Your task to perform on an android device: change keyboard looks Image 0: 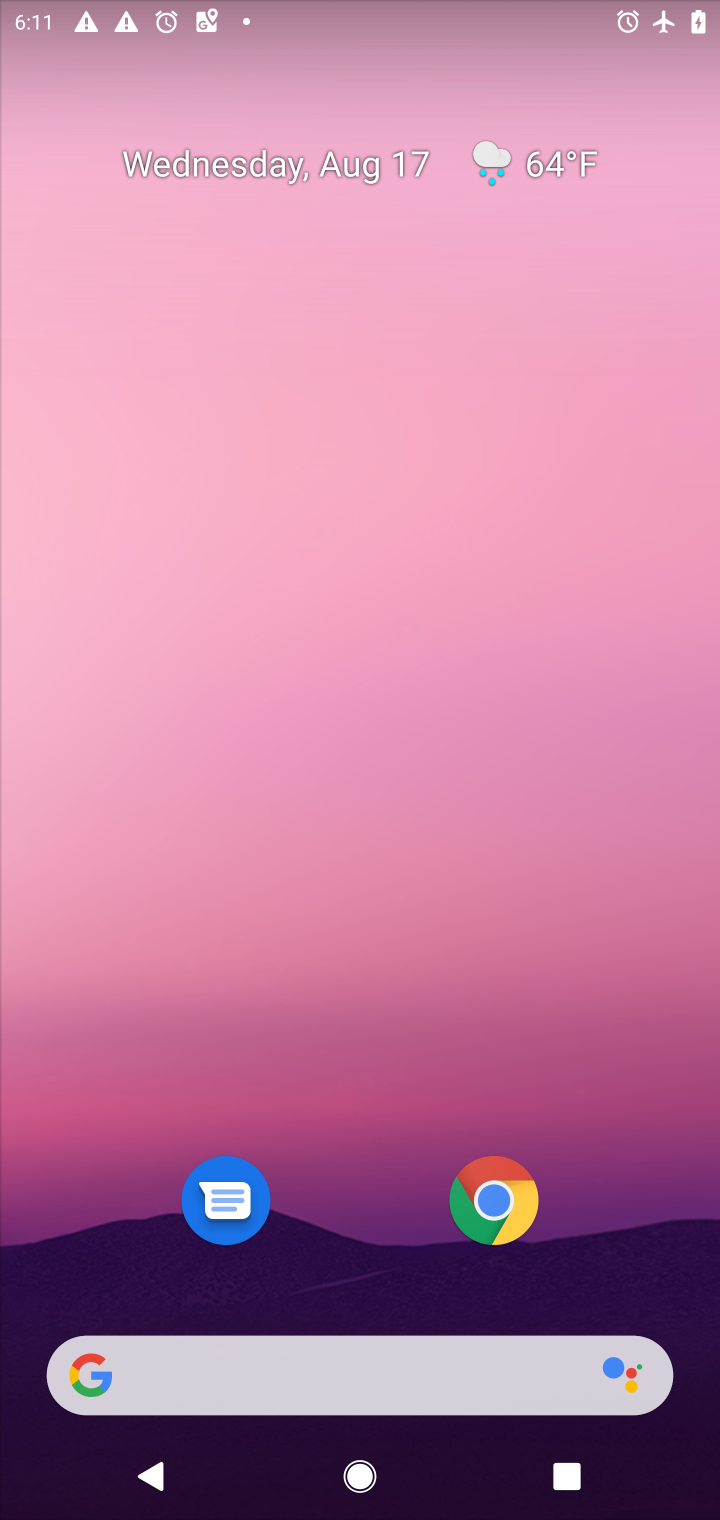
Step 0: press home button
Your task to perform on an android device: change keyboard looks Image 1: 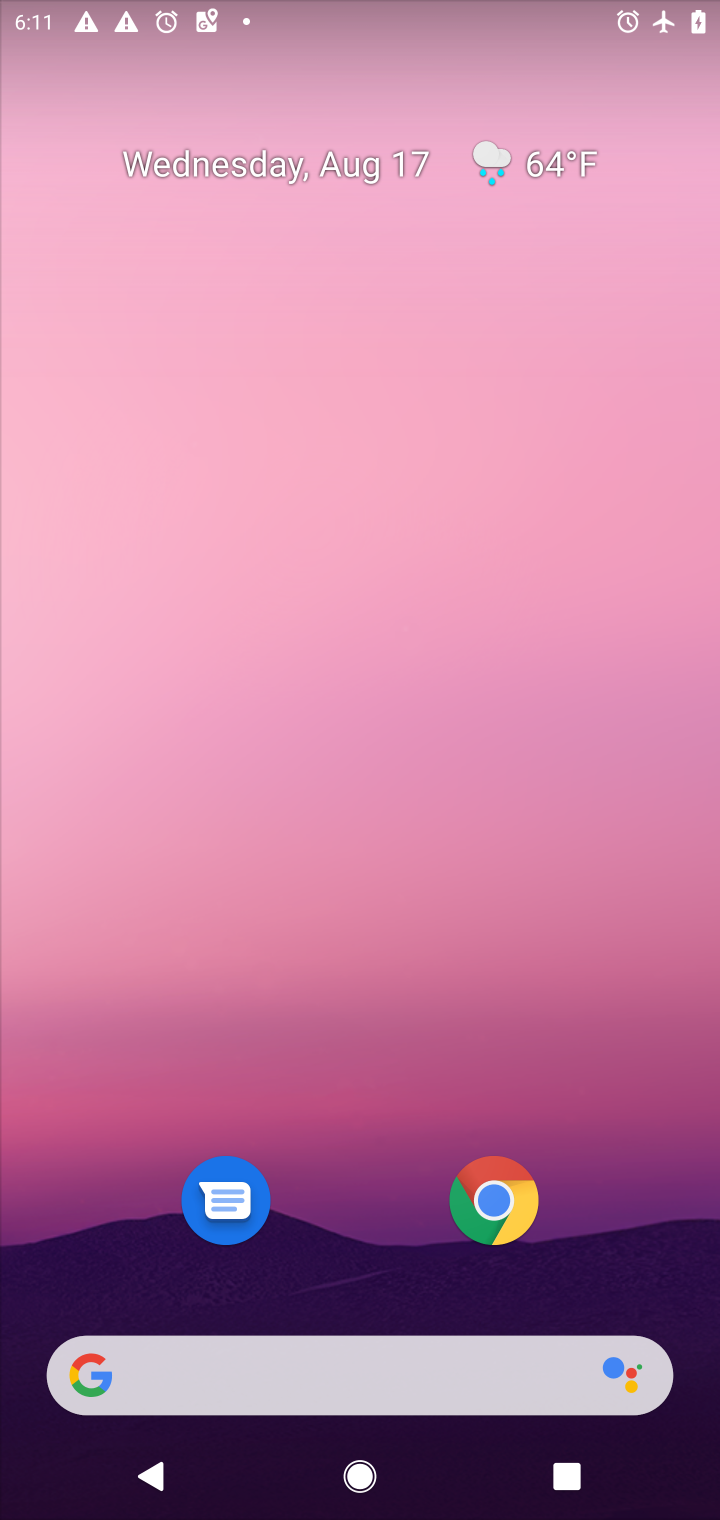
Step 1: drag from (361, 706) to (357, 168)
Your task to perform on an android device: change keyboard looks Image 2: 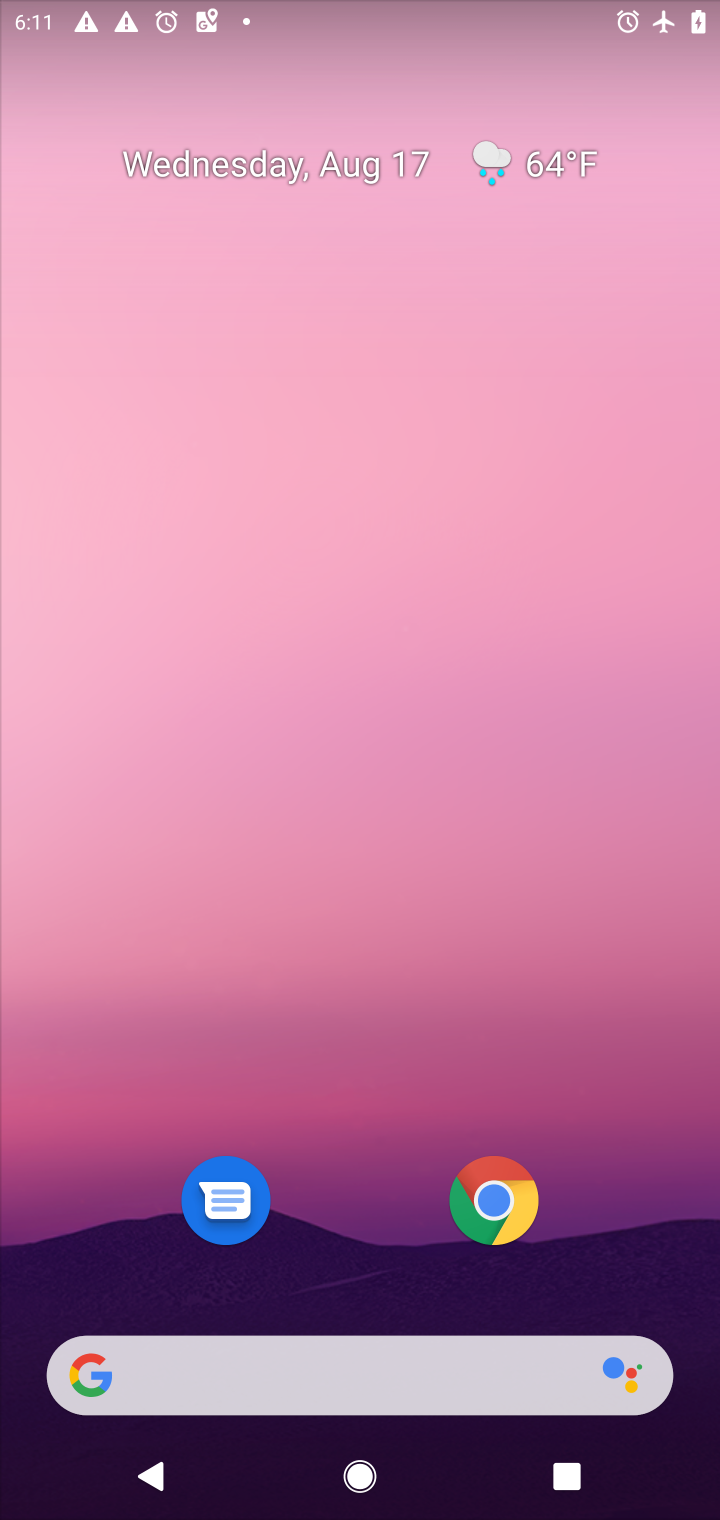
Step 2: drag from (374, 881) to (470, 7)
Your task to perform on an android device: change keyboard looks Image 3: 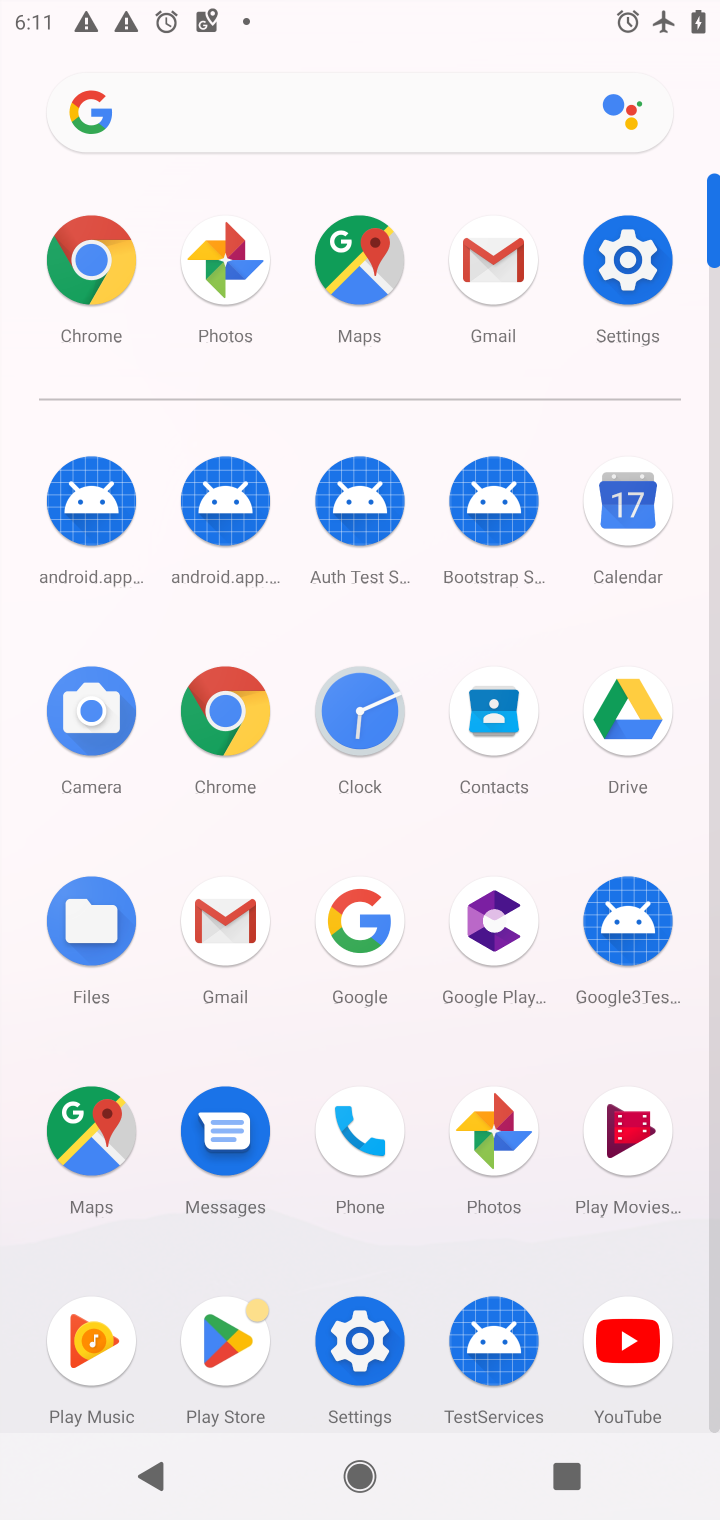
Step 3: click (615, 265)
Your task to perform on an android device: change keyboard looks Image 4: 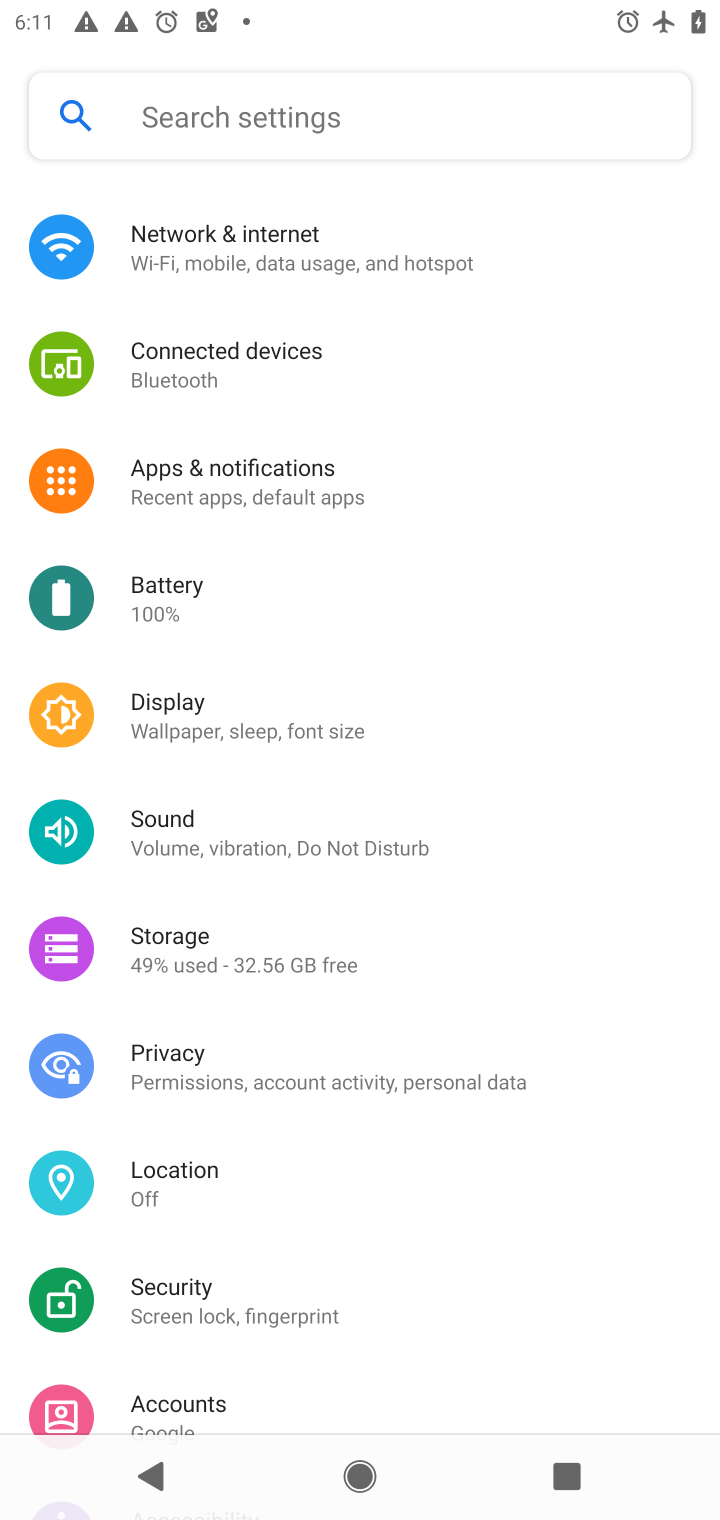
Step 4: drag from (263, 1180) to (258, 465)
Your task to perform on an android device: change keyboard looks Image 5: 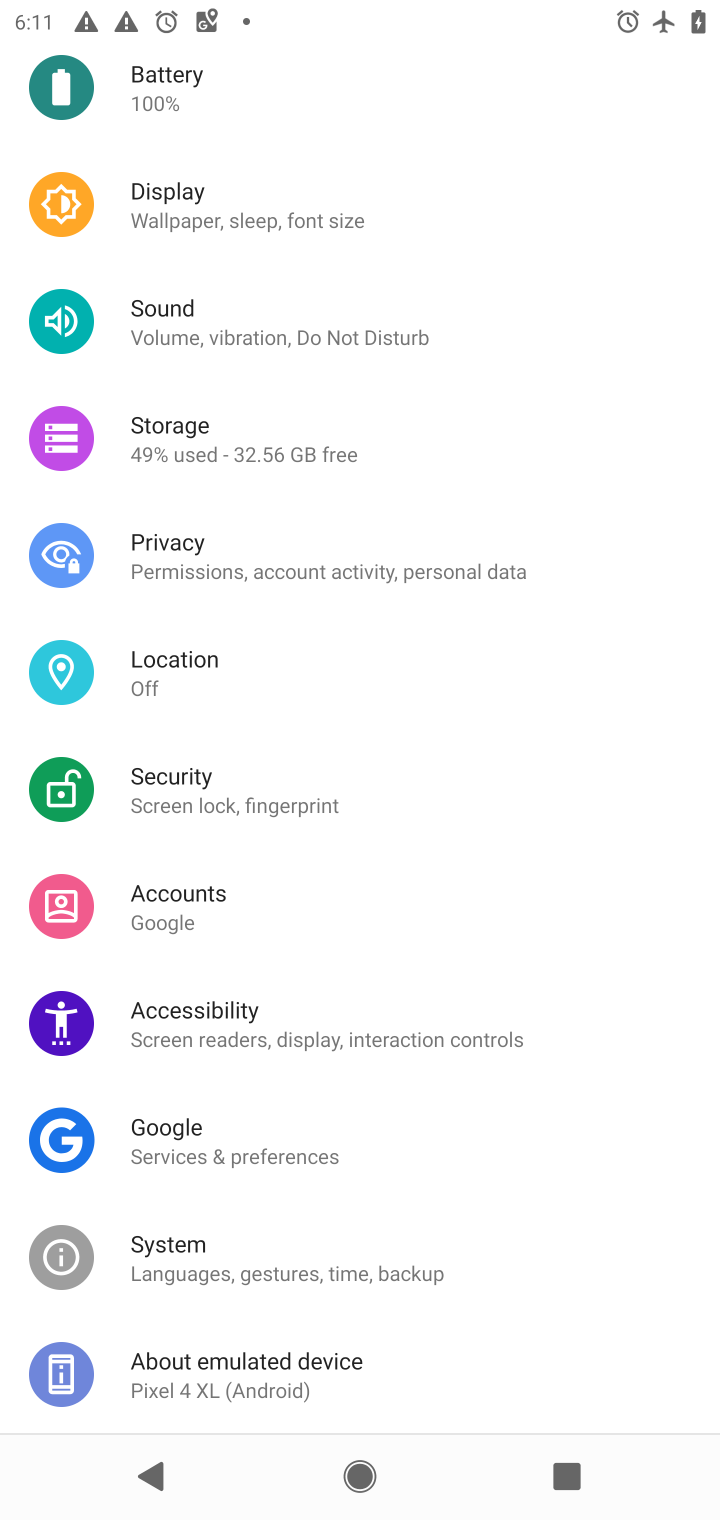
Step 5: drag from (237, 1326) to (220, 660)
Your task to perform on an android device: change keyboard looks Image 6: 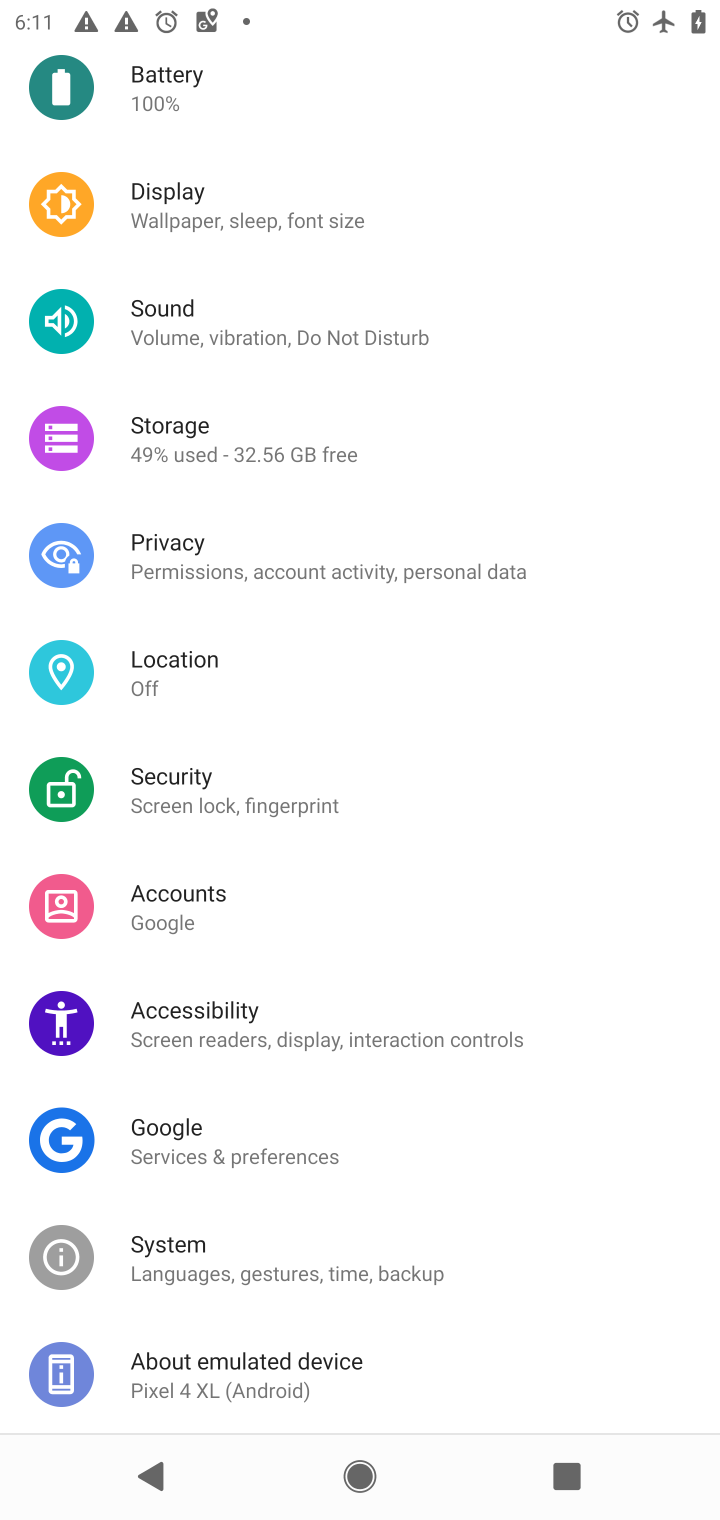
Step 6: click (180, 1270)
Your task to perform on an android device: change keyboard looks Image 7: 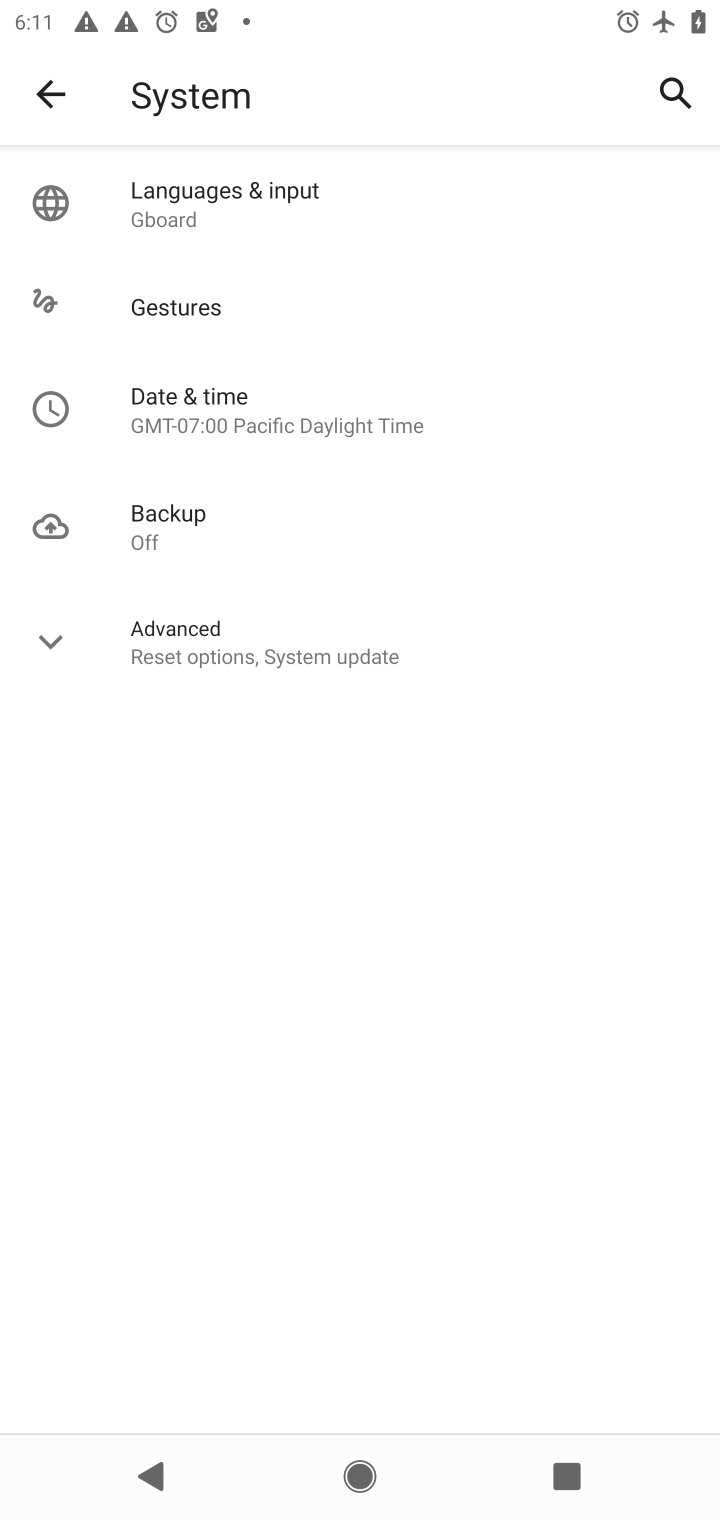
Step 7: click (204, 195)
Your task to perform on an android device: change keyboard looks Image 8: 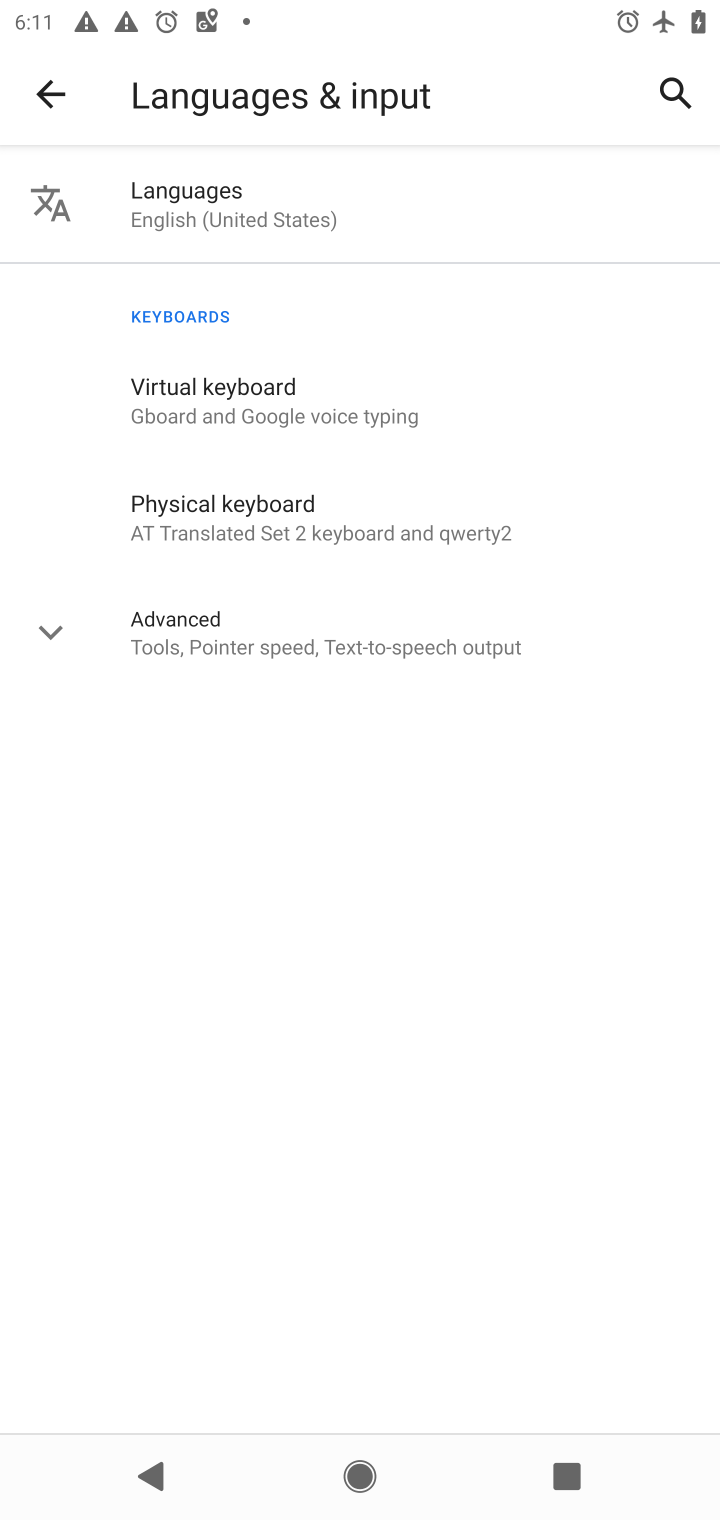
Step 8: click (253, 400)
Your task to perform on an android device: change keyboard looks Image 9: 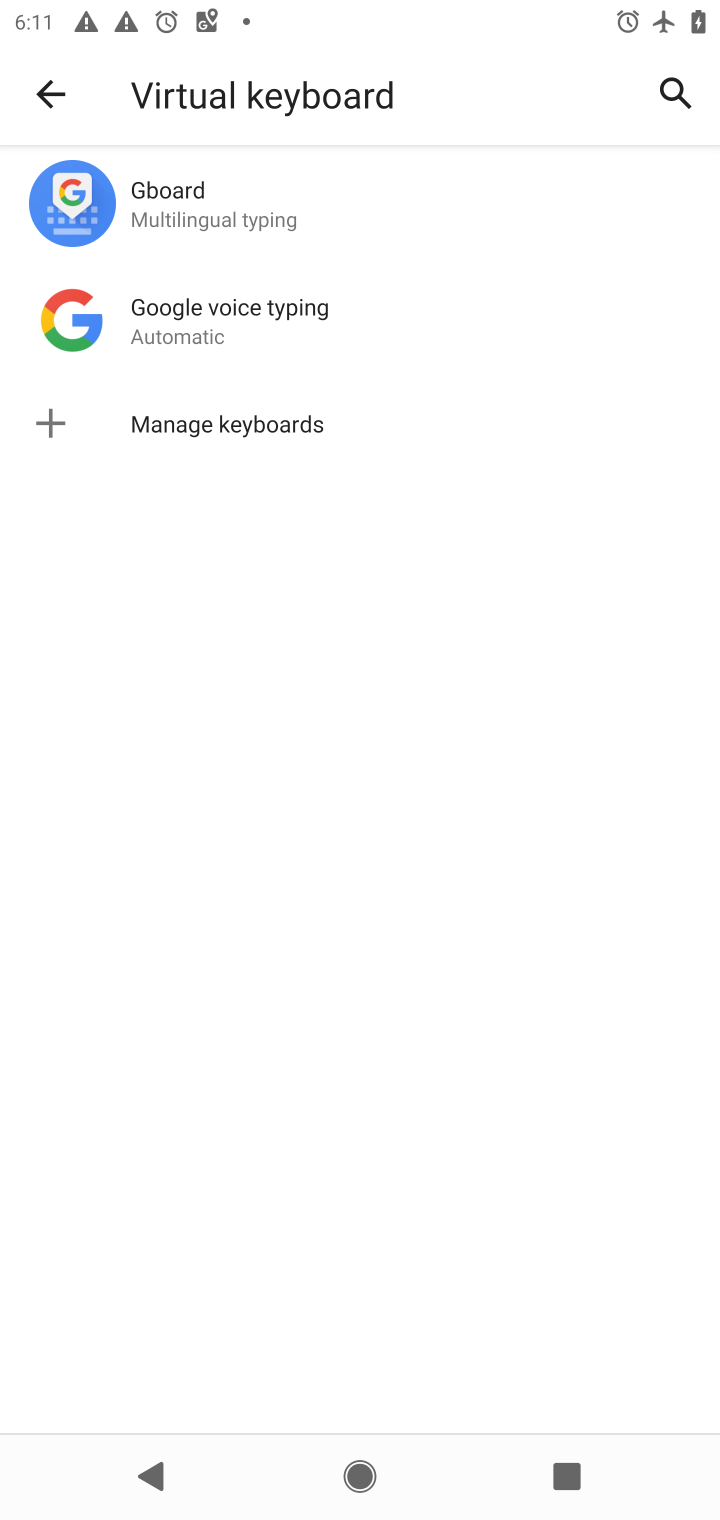
Step 9: click (210, 193)
Your task to perform on an android device: change keyboard looks Image 10: 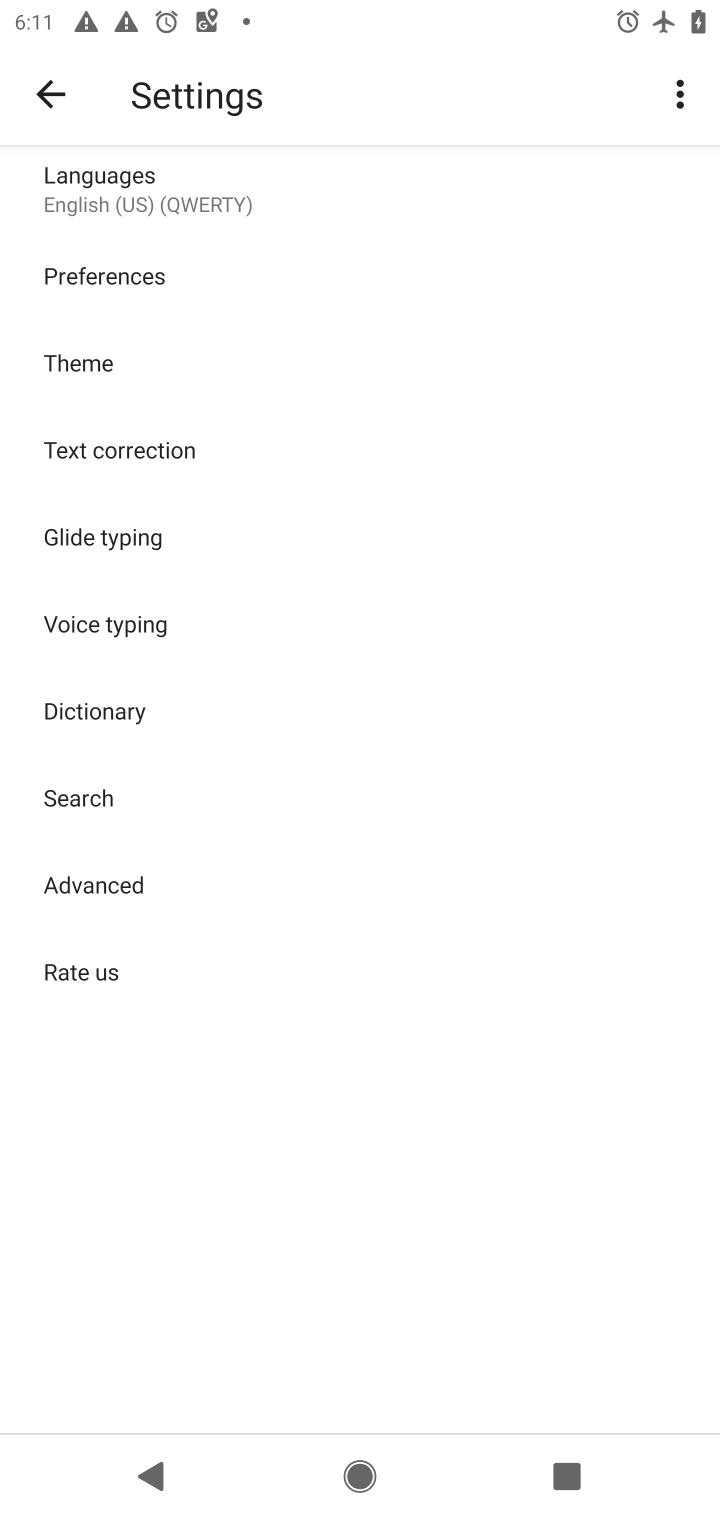
Step 10: click (72, 357)
Your task to perform on an android device: change keyboard looks Image 11: 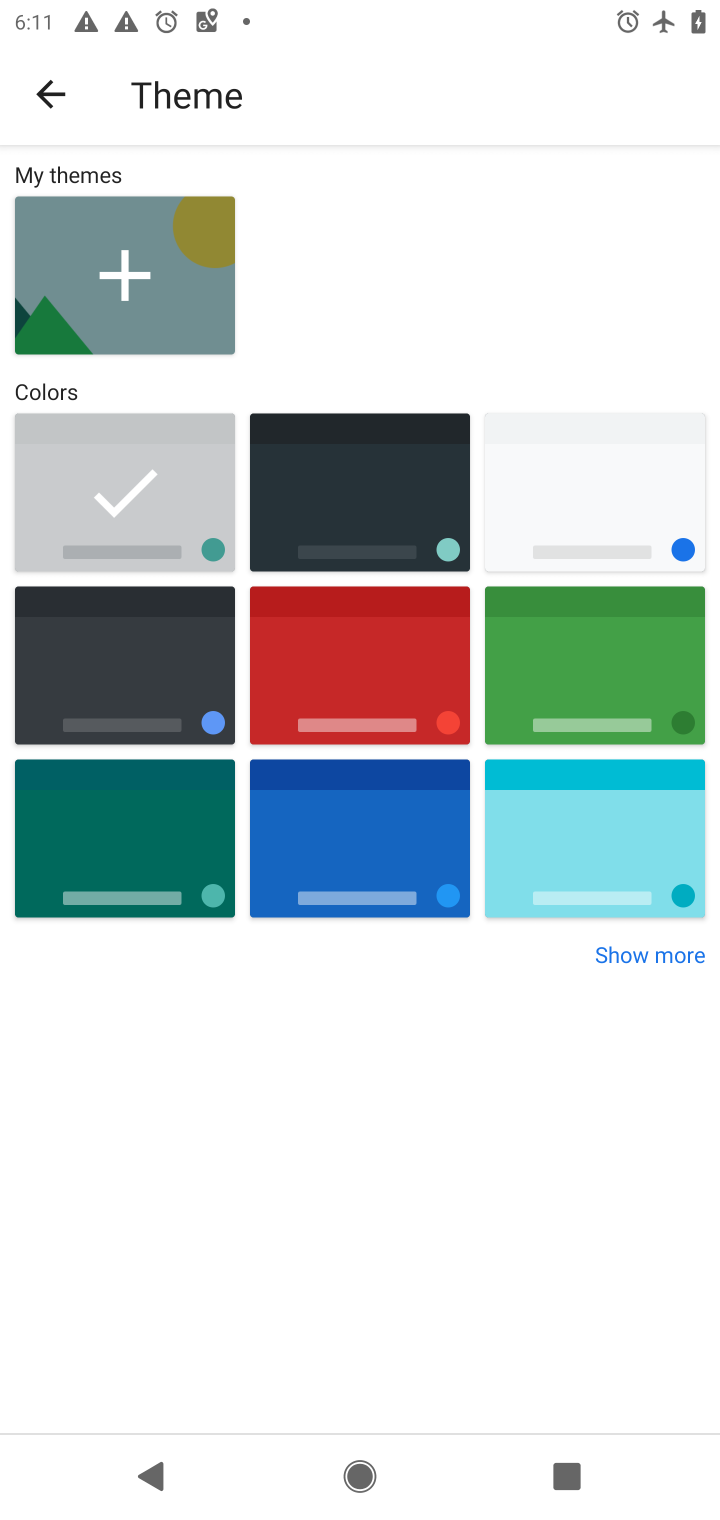
Step 11: click (404, 511)
Your task to perform on an android device: change keyboard looks Image 12: 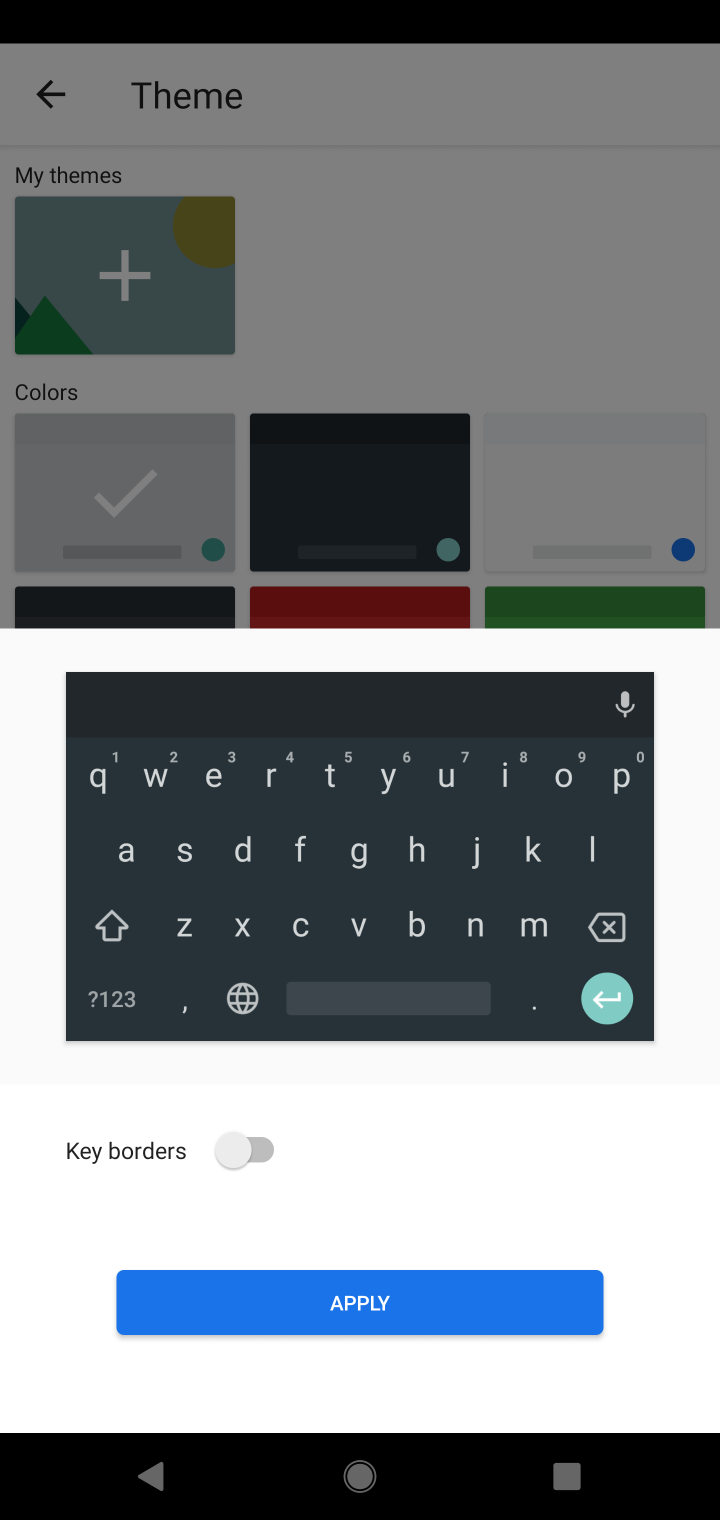
Step 12: click (258, 1147)
Your task to perform on an android device: change keyboard looks Image 13: 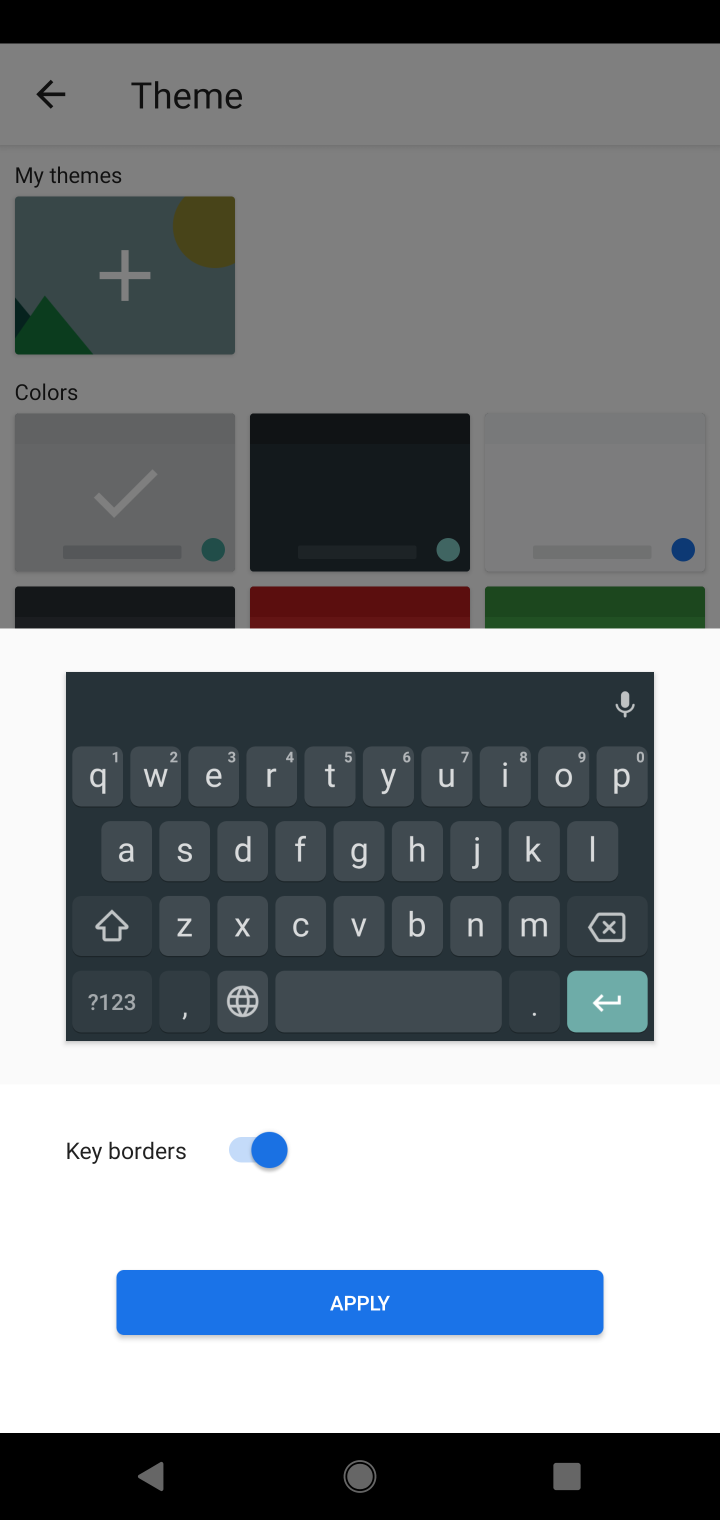
Step 13: click (348, 1306)
Your task to perform on an android device: change keyboard looks Image 14: 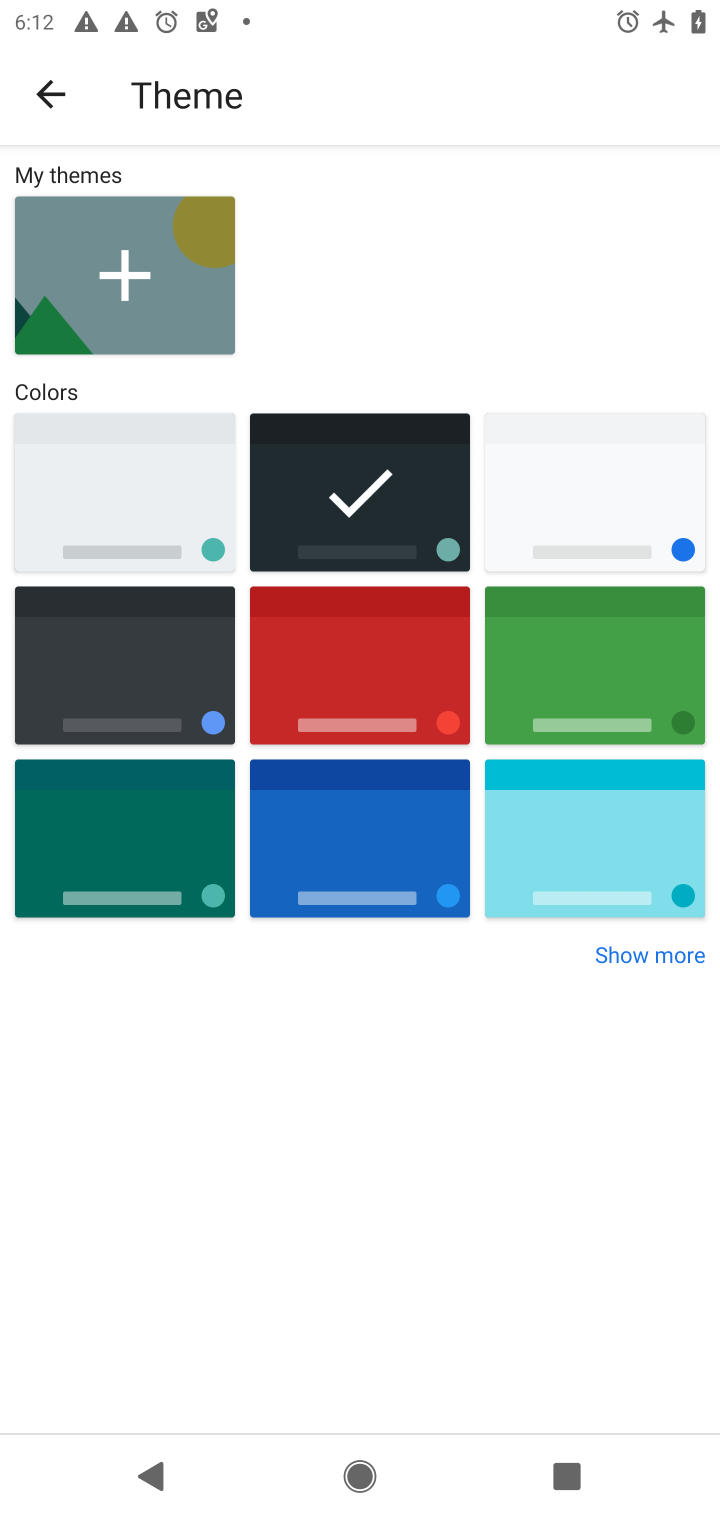
Step 14: task complete